Your task to perform on an android device: open sync settings in chrome Image 0: 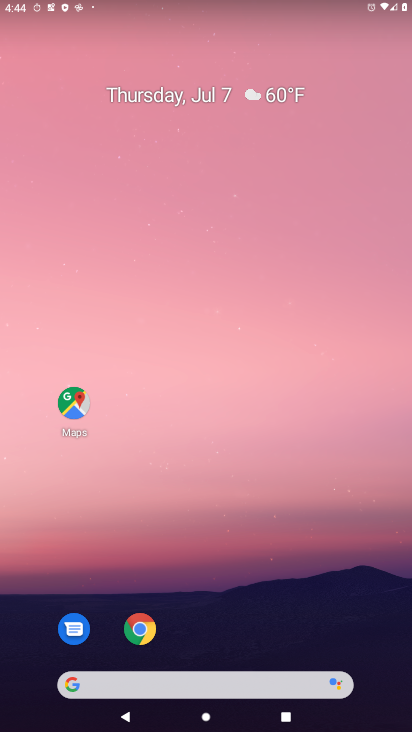
Step 0: click (138, 638)
Your task to perform on an android device: open sync settings in chrome Image 1: 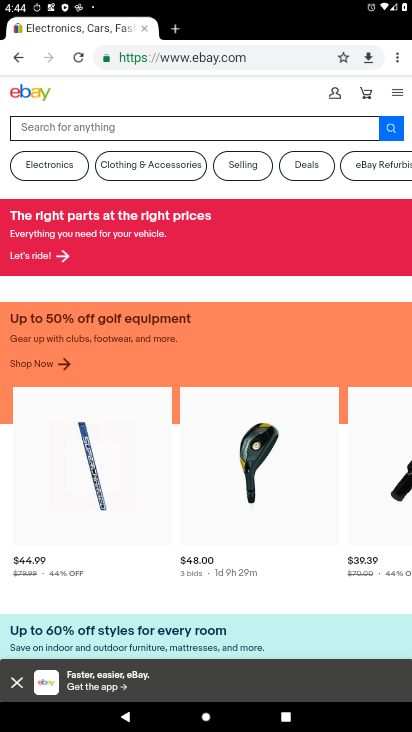
Step 1: click (397, 53)
Your task to perform on an android device: open sync settings in chrome Image 2: 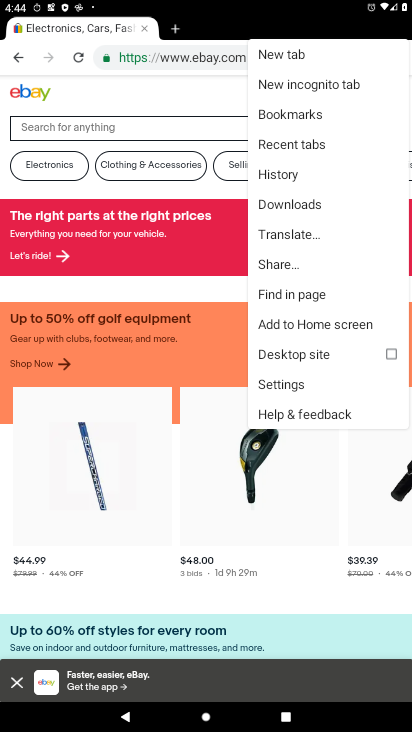
Step 2: click (283, 380)
Your task to perform on an android device: open sync settings in chrome Image 3: 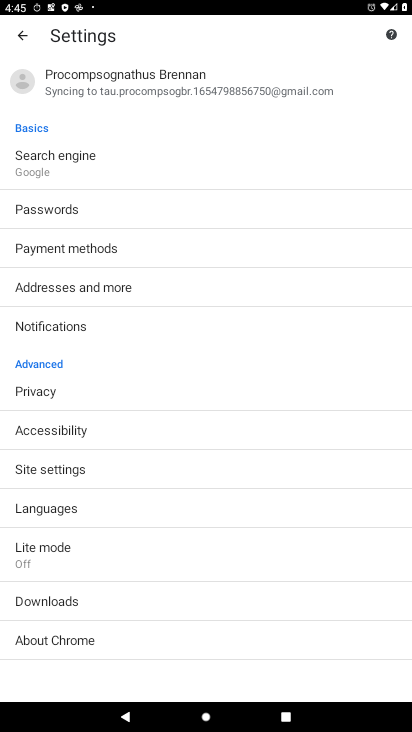
Step 3: click (134, 87)
Your task to perform on an android device: open sync settings in chrome Image 4: 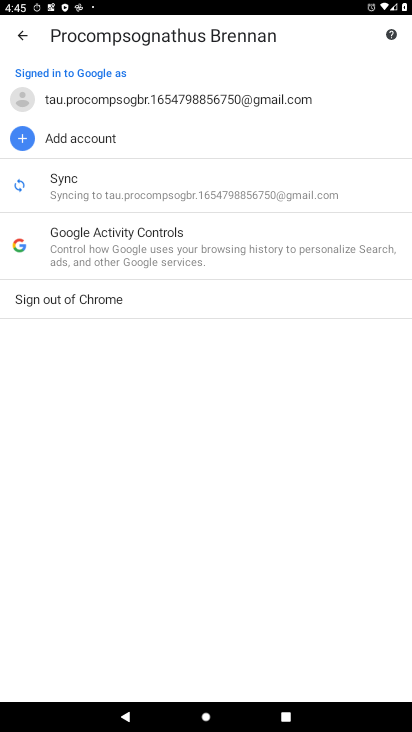
Step 4: click (66, 191)
Your task to perform on an android device: open sync settings in chrome Image 5: 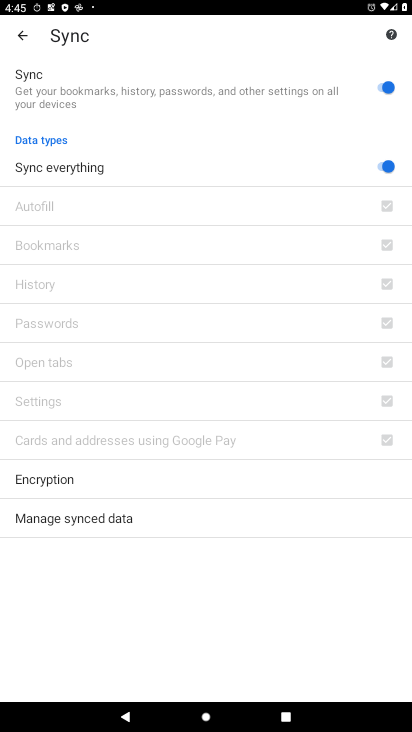
Step 5: task complete